Your task to perform on an android device: What's on my calendar tomorrow? Image 0: 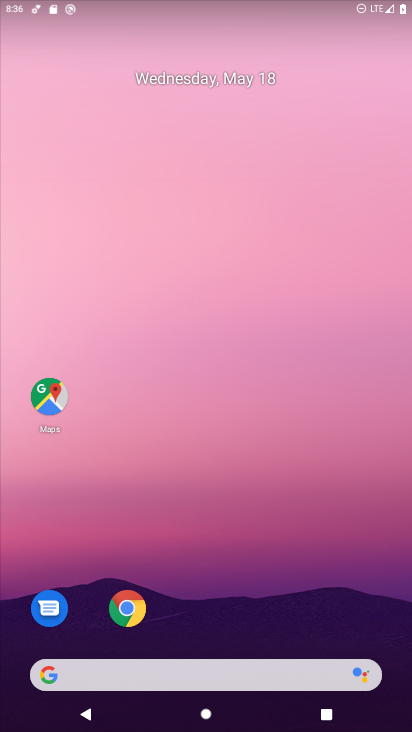
Step 0: drag from (274, 585) to (245, 194)
Your task to perform on an android device: What's on my calendar tomorrow? Image 1: 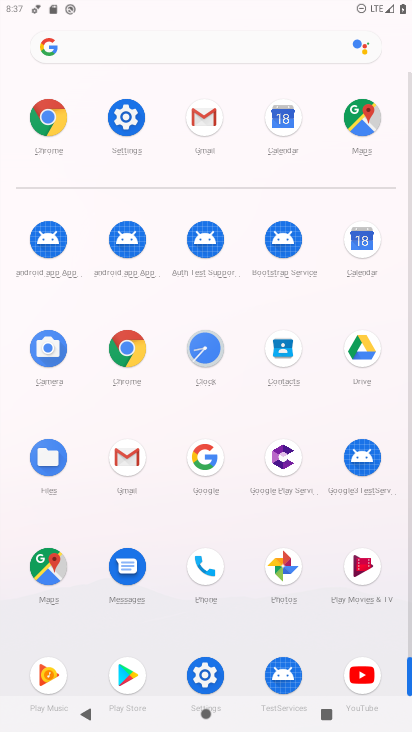
Step 1: click (357, 240)
Your task to perform on an android device: What's on my calendar tomorrow? Image 2: 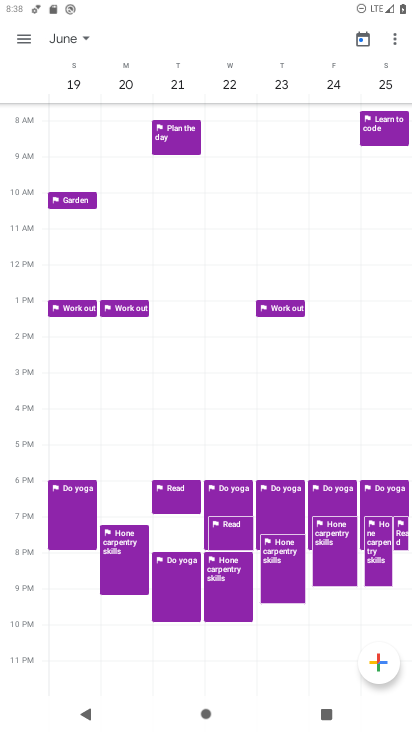
Step 2: click (27, 36)
Your task to perform on an android device: What's on my calendar tomorrow? Image 3: 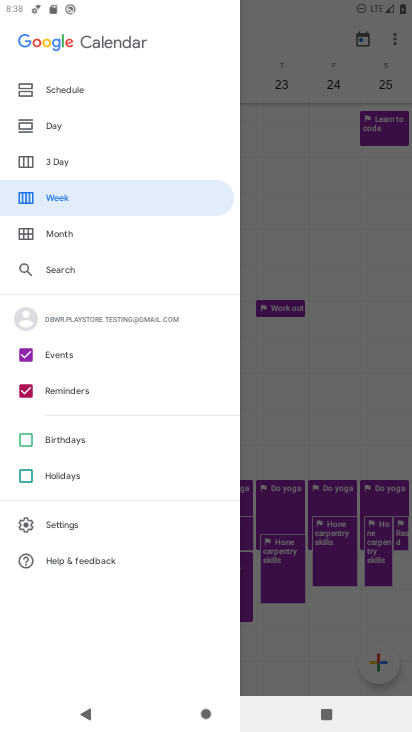
Step 3: click (56, 126)
Your task to perform on an android device: What's on my calendar tomorrow? Image 4: 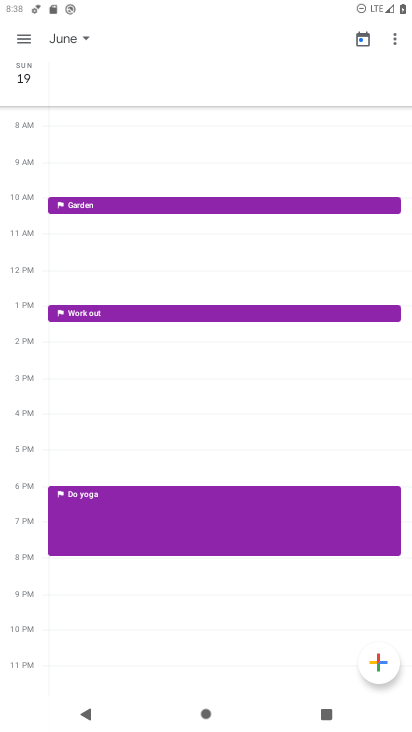
Step 4: click (68, 34)
Your task to perform on an android device: What's on my calendar tomorrow? Image 5: 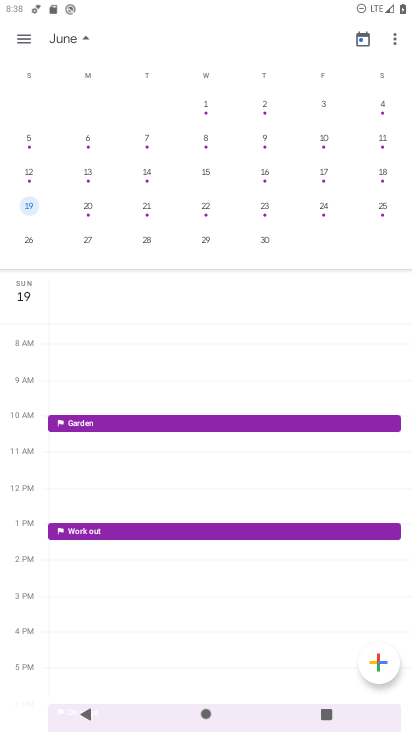
Step 5: drag from (35, 168) to (400, 234)
Your task to perform on an android device: What's on my calendar tomorrow? Image 6: 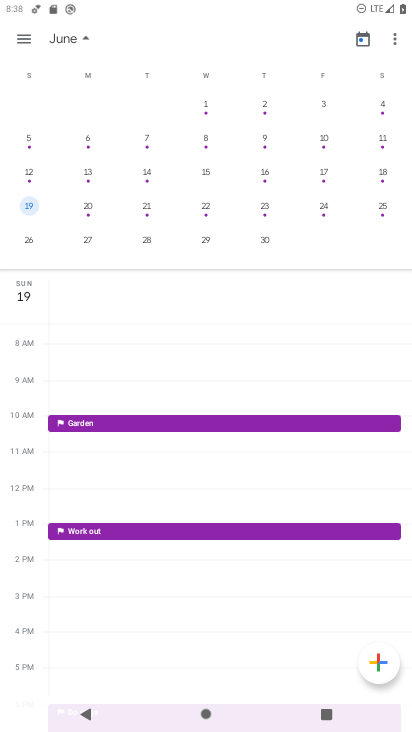
Step 6: drag from (52, 161) to (408, 141)
Your task to perform on an android device: What's on my calendar tomorrow? Image 7: 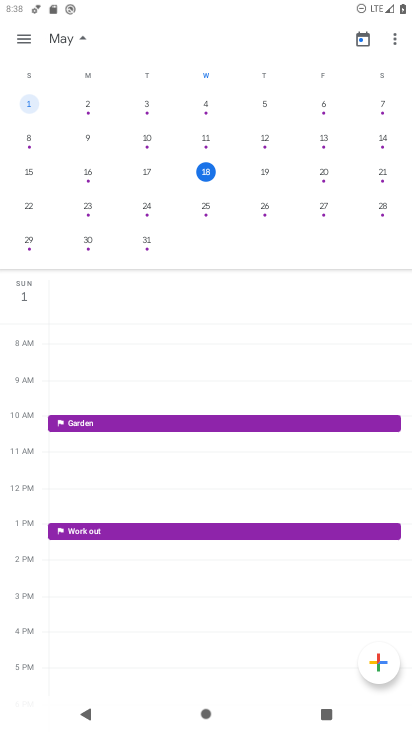
Step 7: click (263, 166)
Your task to perform on an android device: What's on my calendar tomorrow? Image 8: 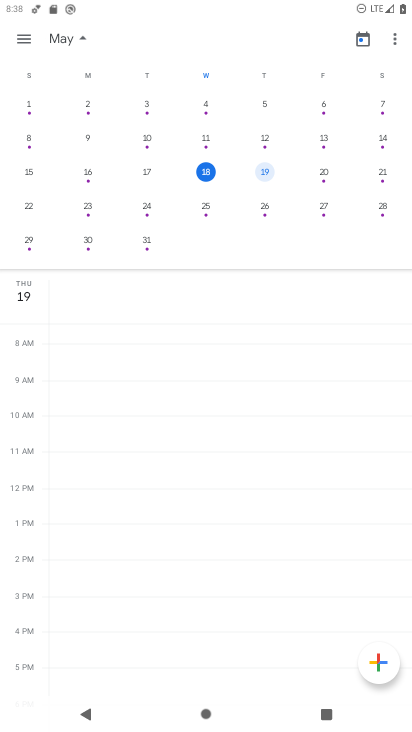
Step 8: task complete